Your task to perform on an android device: toggle location history Image 0: 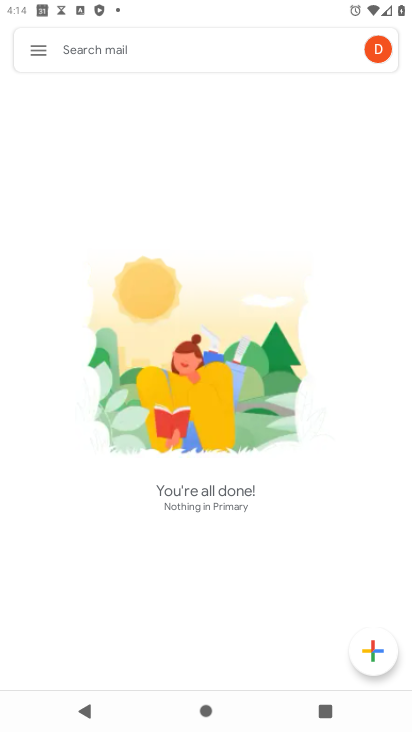
Step 0: press home button
Your task to perform on an android device: toggle location history Image 1: 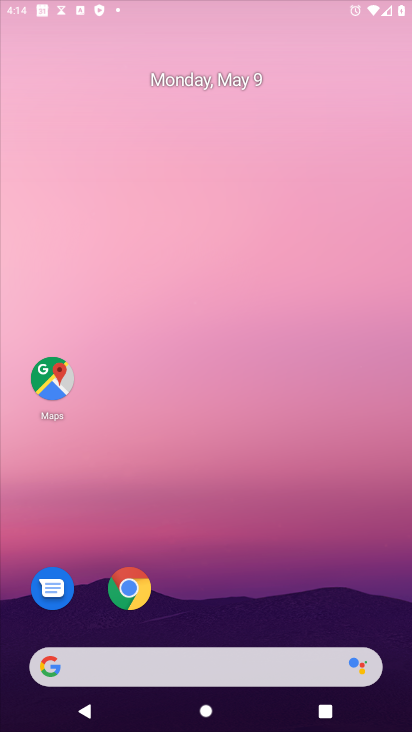
Step 1: drag from (292, 606) to (212, 163)
Your task to perform on an android device: toggle location history Image 2: 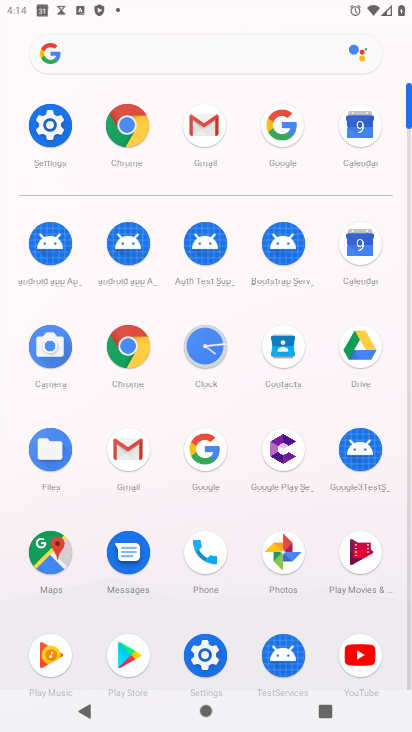
Step 2: click (211, 664)
Your task to perform on an android device: toggle location history Image 3: 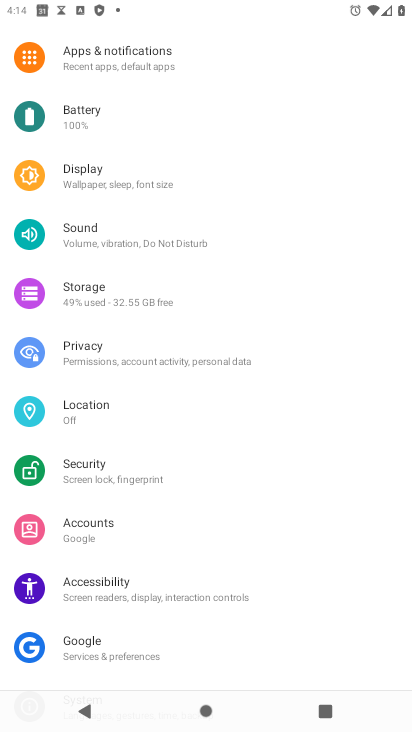
Step 3: click (125, 411)
Your task to perform on an android device: toggle location history Image 4: 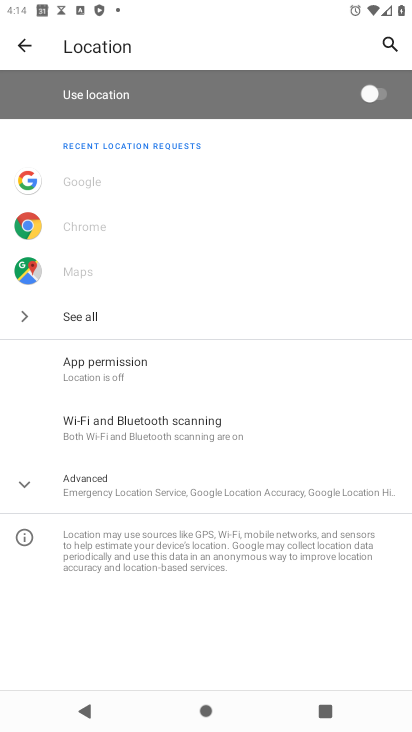
Step 4: click (146, 459)
Your task to perform on an android device: toggle location history Image 5: 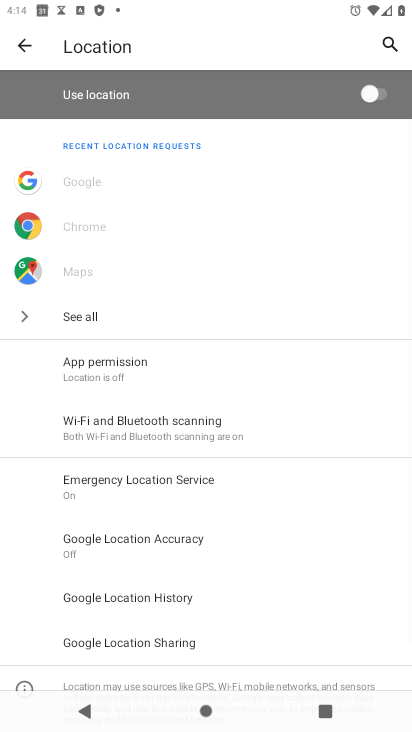
Step 5: click (156, 605)
Your task to perform on an android device: toggle location history Image 6: 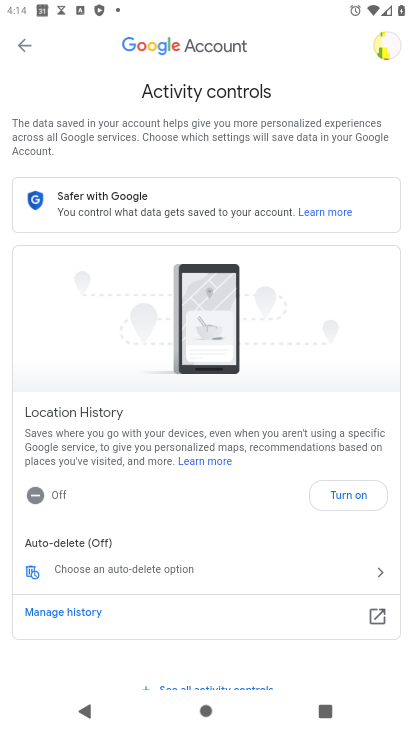
Step 6: drag from (235, 560) to (222, 328)
Your task to perform on an android device: toggle location history Image 7: 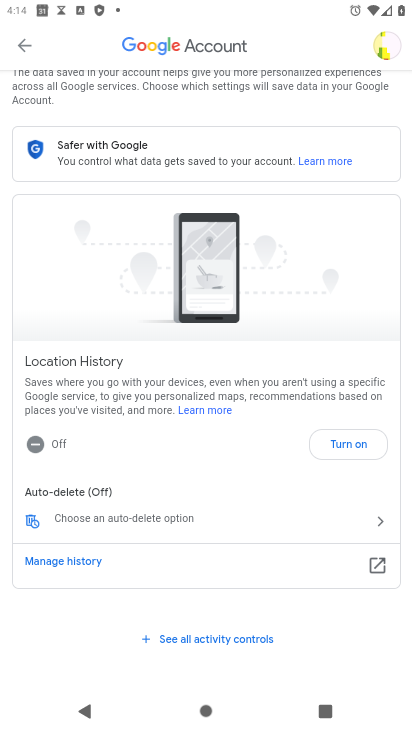
Step 7: drag from (225, 517) to (208, 205)
Your task to perform on an android device: toggle location history Image 8: 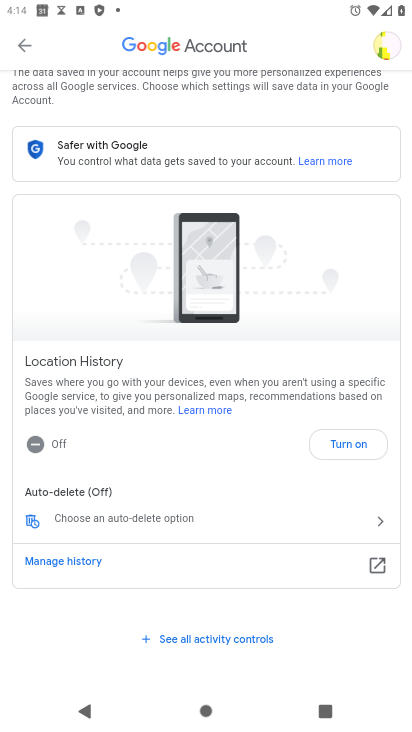
Step 8: click (356, 453)
Your task to perform on an android device: toggle location history Image 9: 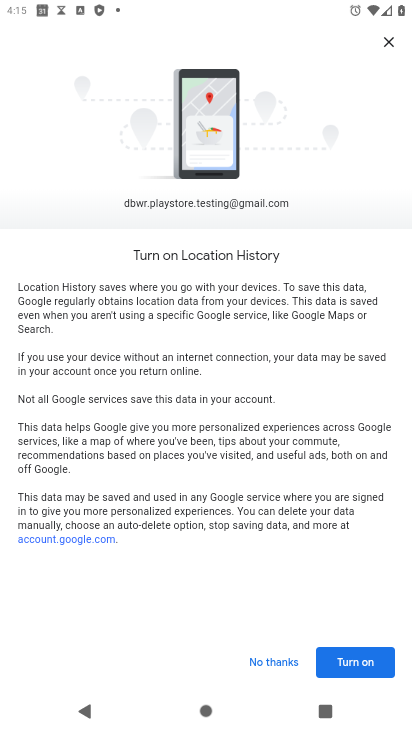
Step 9: click (356, 665)
Your task to perform on an android device: toggle location history Image 10: 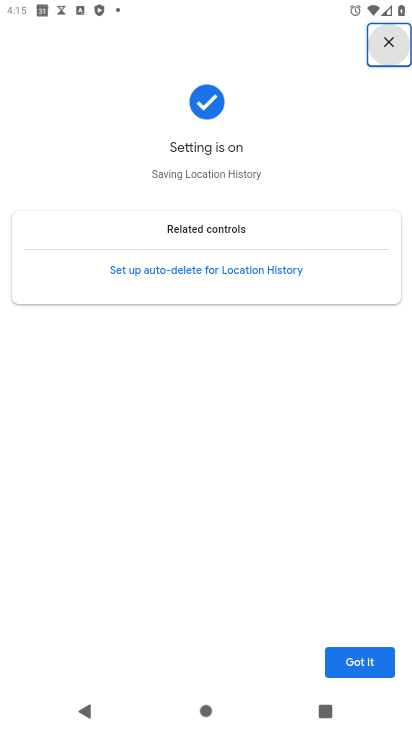
Step 10: click (367, 666)
Your task to perform on an android device: toggle location history Image 11: 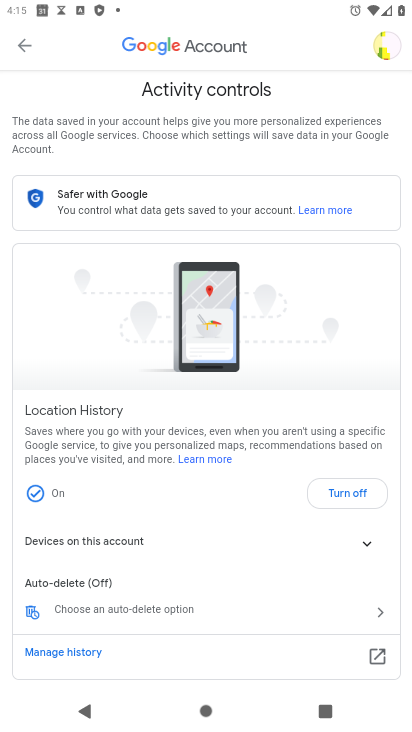
Step 11: task complete